Your task to perform on an android device: Open Google Maps and go to "Timeline" Image 0: 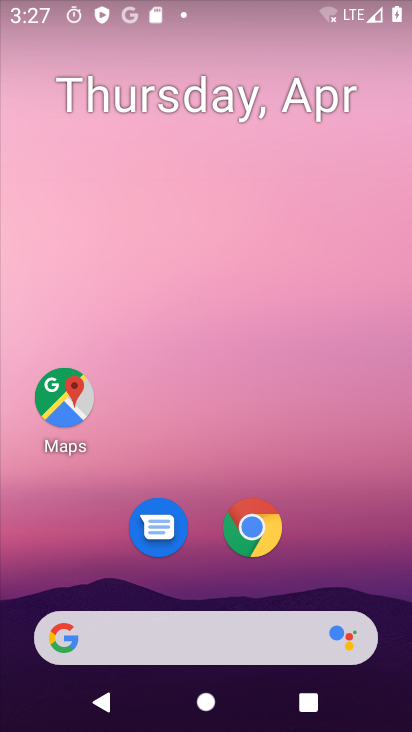
Step 0: drag from (334, 505) to (315, 70)
Your task to perform on an android device: Open Google Maps and go to "Timeline" Image 1: 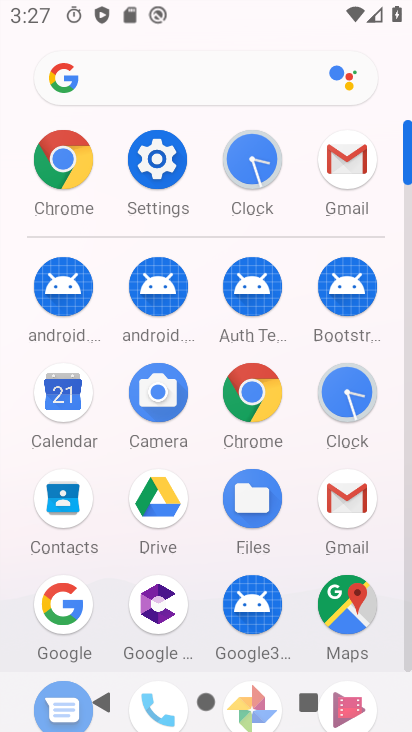
Step 1: click (360, 622)
Your task to perform on an android device: Open Google Maps and go to "Timeline" Image 2: 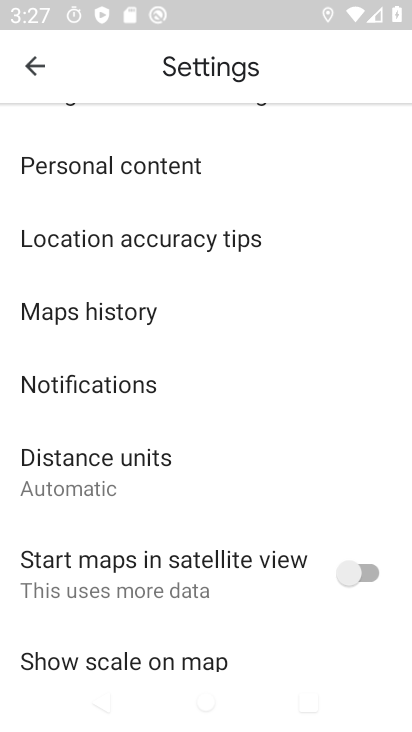
Step 2: click (32, 59)
Your task to perform on an android device: Open Google Maps and go to "Timeline" Image 3: 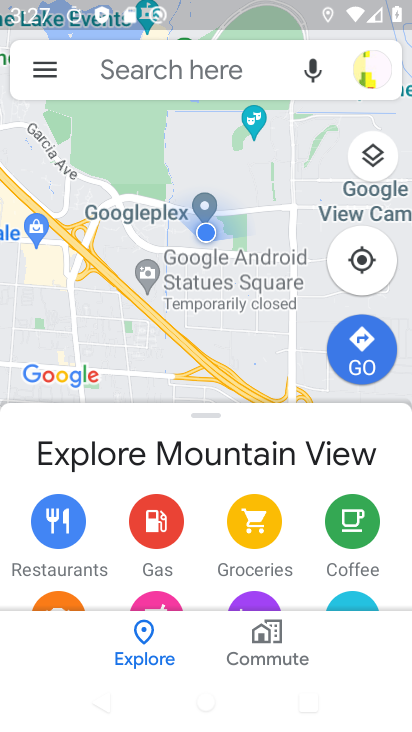
Step 3: click (31, 58)
Your task to perform on an android device: Open Google Maps and go to "Timeline" Image 4: 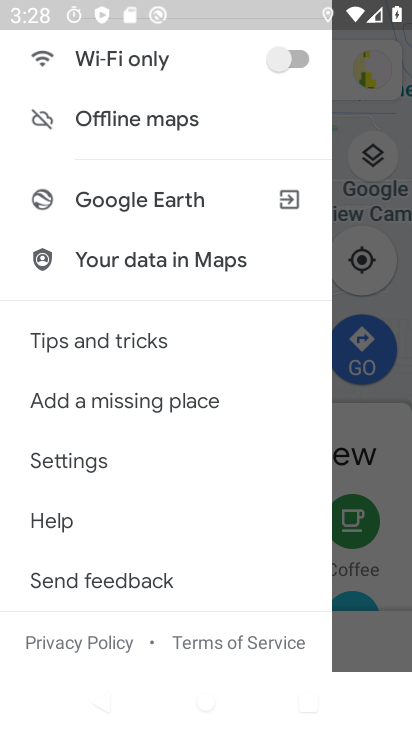
Step 4: drag from (151, 275) to (198, 729)
Your task to perform on an android device: Open Google Maps and go to "Timeline" Image 5: 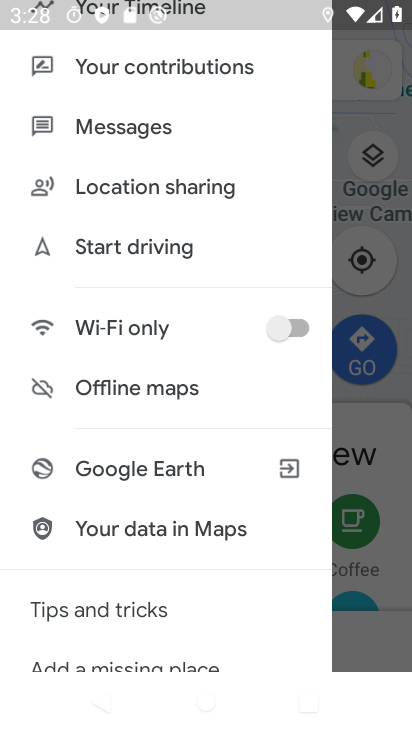
Step 5: drag from (169, 176) to (179, 648)
Your task to perform on an android device: Open Google Maps and go to "Timeline" Image 6: 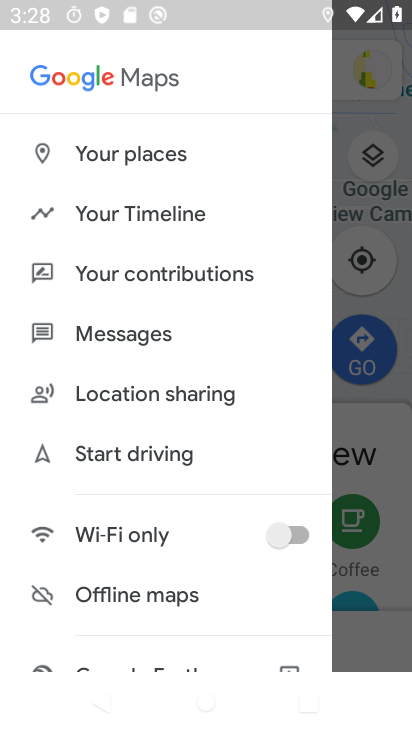
Step 6: click (170, 207)
Your task to perform on an android device: Open Google Maps and go to "Timeline" Image 7: 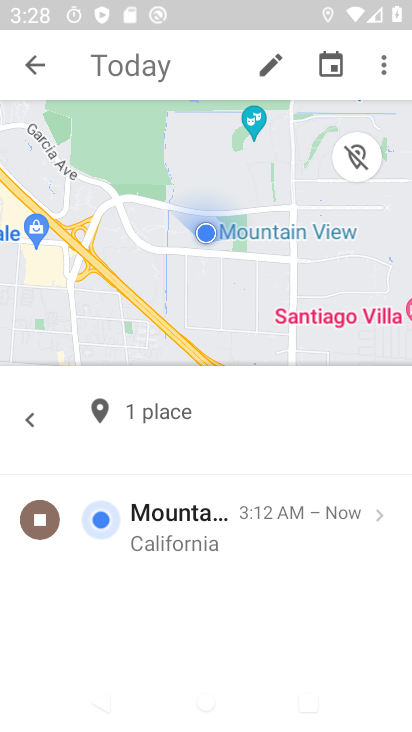
Step 7: task complete